Your task to perform on an android device: check data usage Image 0: 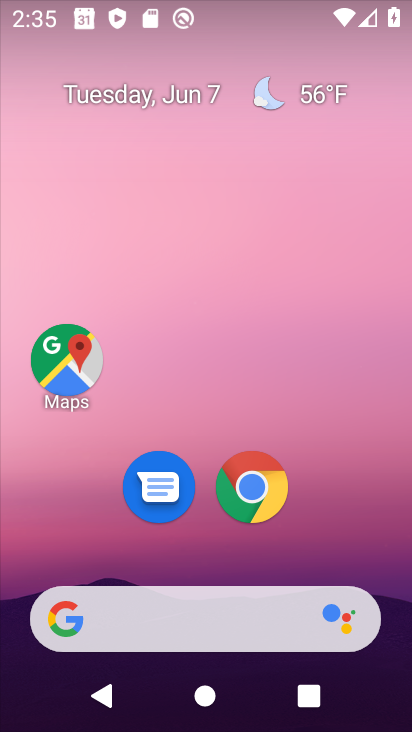
Step 0: press home button
Your task to perform on an android device: check data usage Image 1: 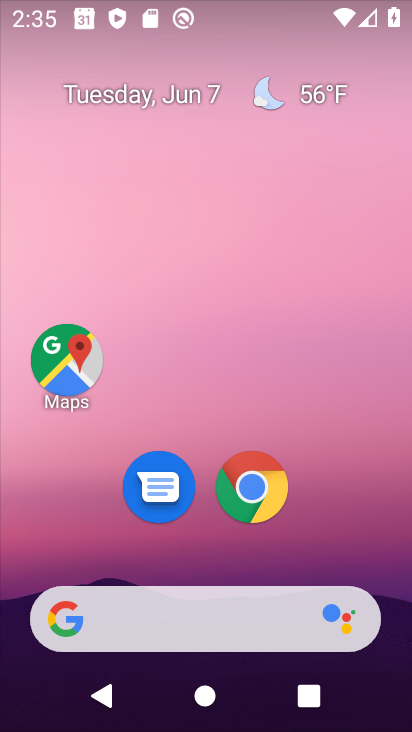
Step 1: drag from (340, 516) to (326, 1)
Your task to perform on an android device: check data usage Image 2: 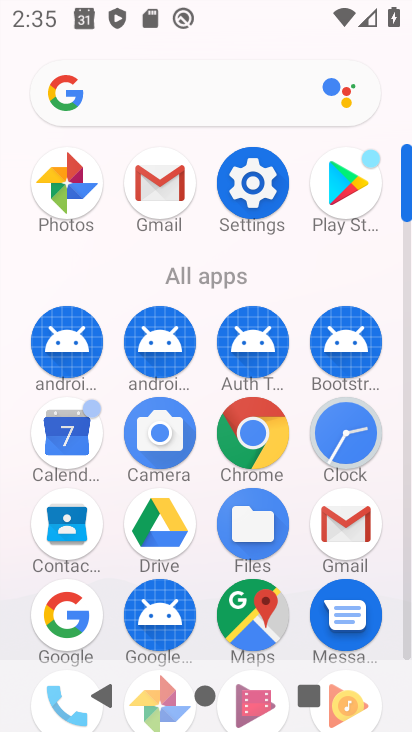
Step 2: click (238, 180)
Your task to perform on an android device: check data usage Image 3: 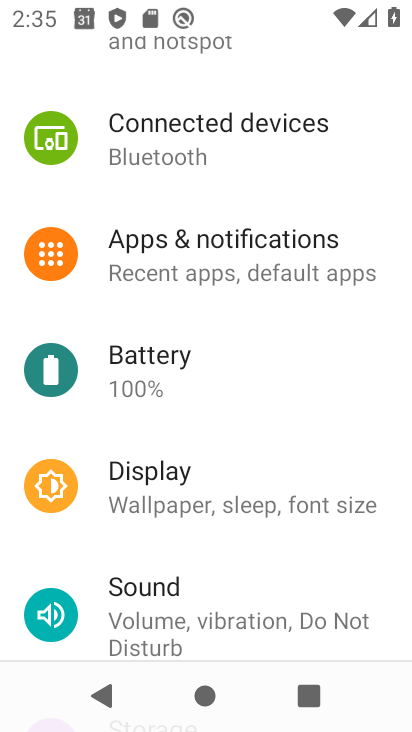
Step 3: drag from (279, 585) to (273, 709)
Your task to perform on an android device: check data usage Image 4: 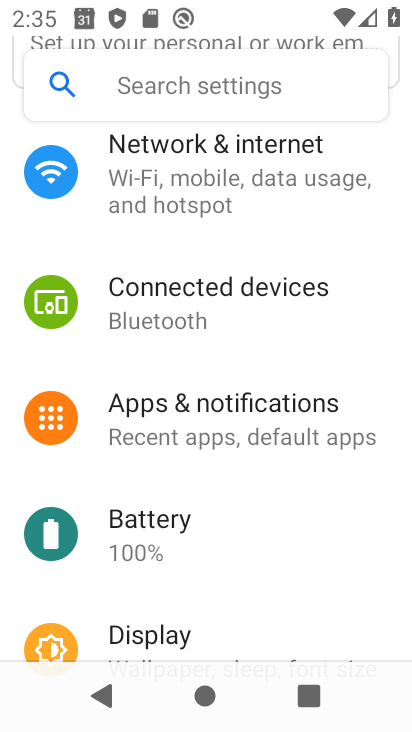
Step 4: click (262, 167)
Your task to perform on an android device: check data usage Image 5: 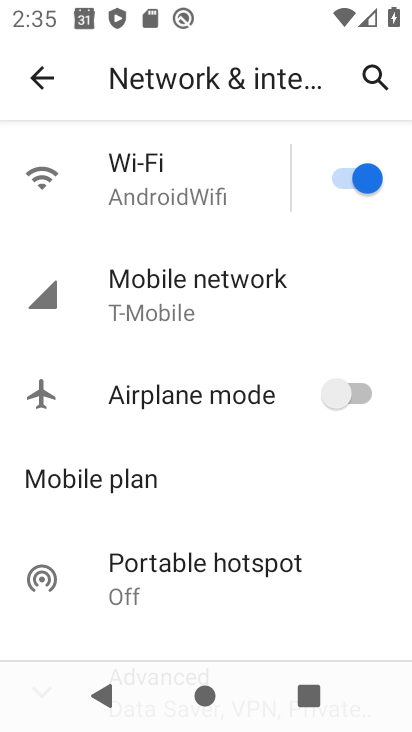
Step 5: drag from (199, 508) to (170, 212)
Your task to perform on an android device: check data usage Image 6: 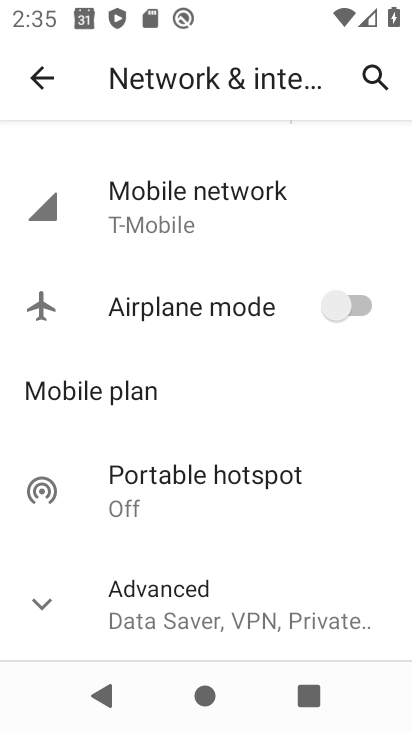
Step 6: click (163, 211)
Your task to perform on an android device: check data usage Image 7: 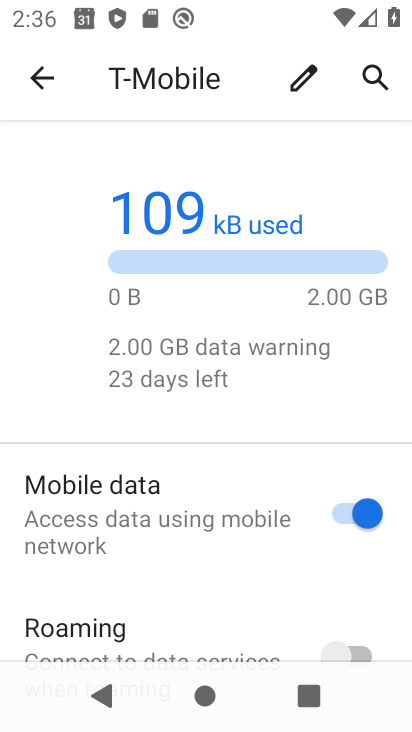
Step 7: task complete